Your task to perform on an android device: find which apps use the phone's location Image 0: 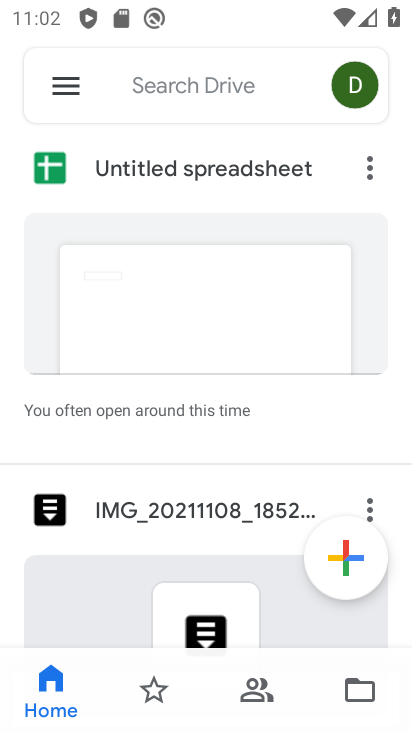
Step 0: press home button
Your task to perform on an android device: find which apps use the phone's location Image 1: 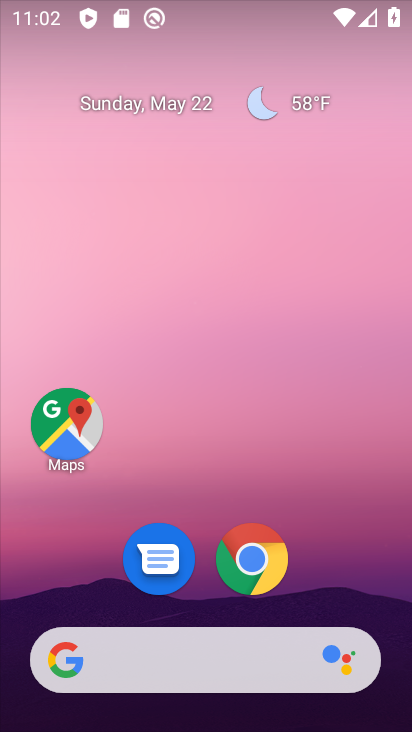
Step 1: drag from (213, 666) to (164, 24)
Your task to perform on an android device: find which apps use the phone's location Image 2: 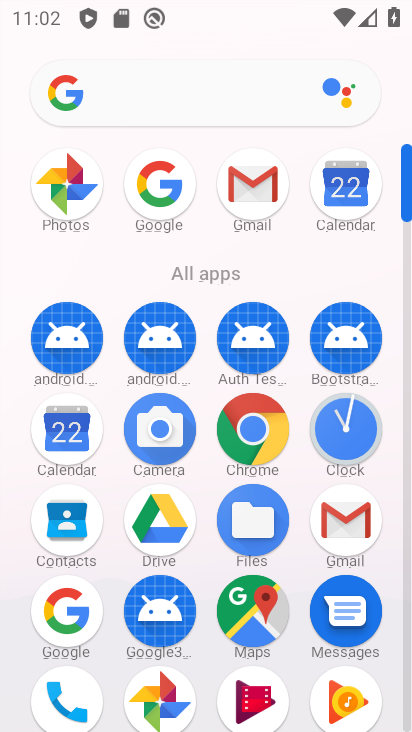
Step 2: drag from (207, 645) to (178, 213)
Your task to perform on an android device: find which apps use the phone's location Image 3: 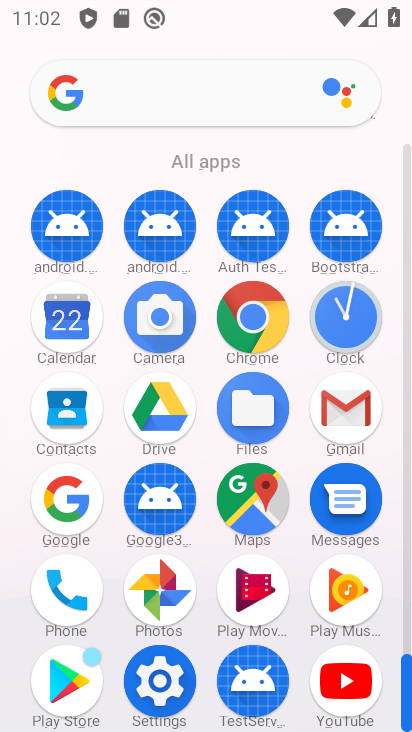
Step 3: click (167, 679)
Your task to perform on an android device: find which apps use the phone's location Image 4: 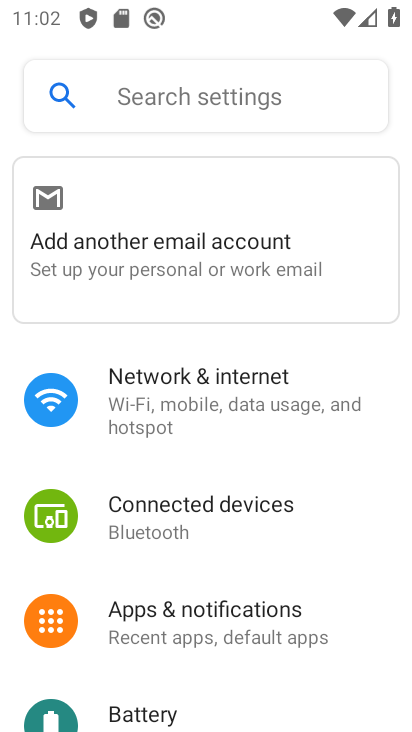
Step 4: drag from (157, 591) to (167, 56)
Your task to perform on an android device: find which apps use the phone's location Image 5: 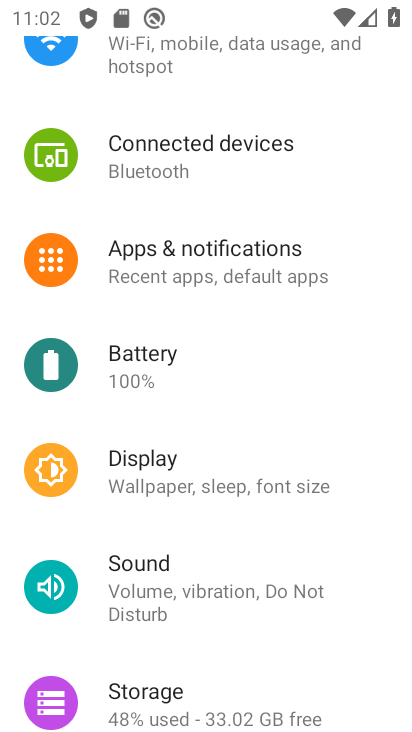
Step 5: drag from (172, 584) to (150, 179)
Your task to perform on an android device: find which apps use the phone's location Image 6: 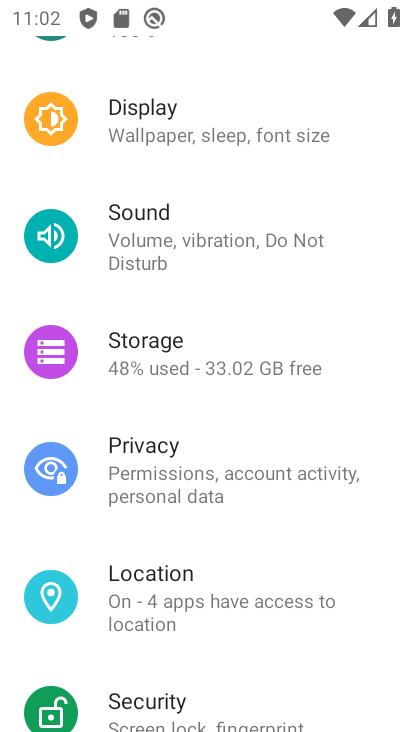
Step 6: click (143, 580)
Your task to perform on an android device: find which apps use the phone's location Image 7: 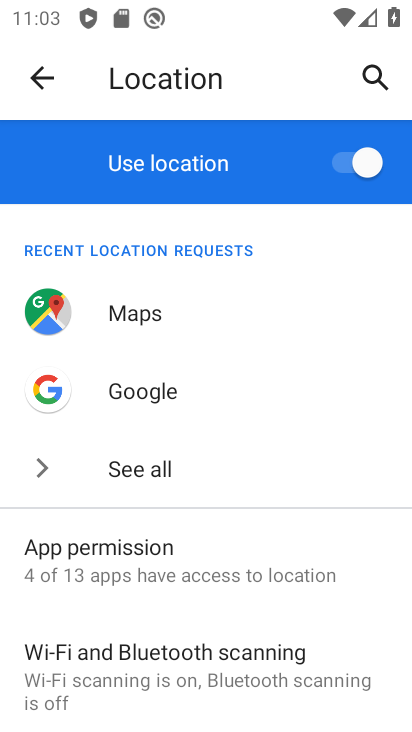
Step 7: click (142, 558)
Your task to perform on an android device: find which apps use the phone's location Image 8: 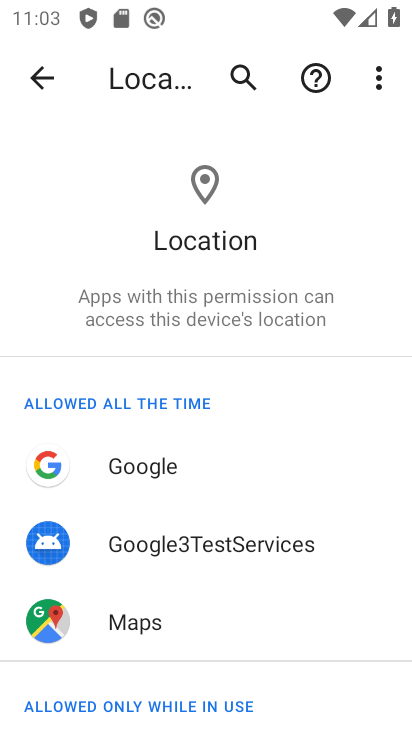
Step 8: task complete